Your task to perform on an android device: change the upload size in google photos Image 0: 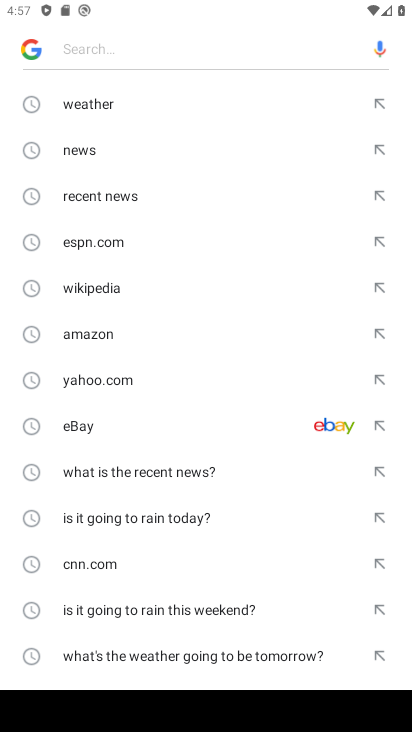
Step 0: press home button
Your task to perform on an android device: change the upload size in google photos Image 1: 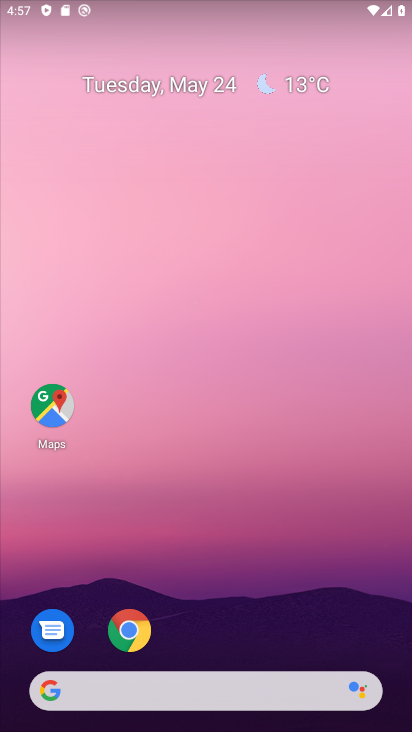
Step 1: drag from (200, 637) to (248, 4)
Your task to perform on an android device: change the upload size in google photos Image 2: 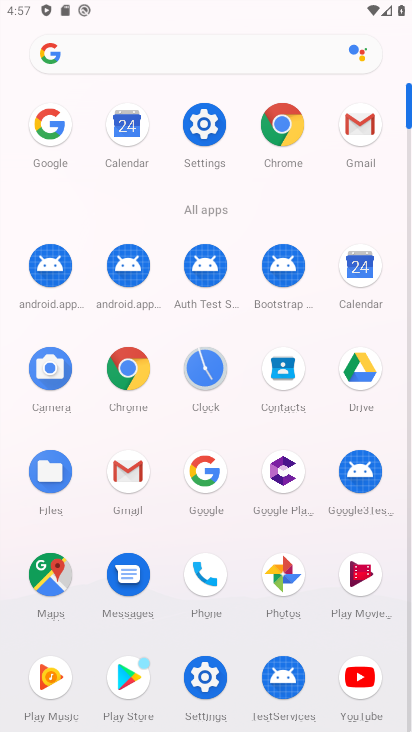
Step 2: click (291, 594)
Your task to perform on an android device: change the upload size in google photos Image 3: 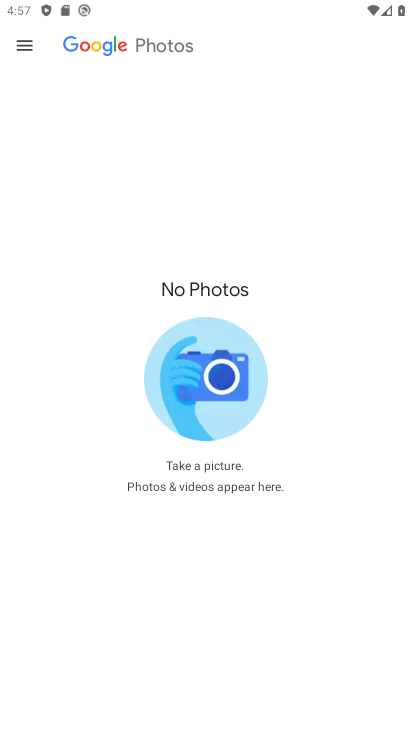
Step 3: click (25, 46)
Your task to perform on an android device: change the upload size in google photos Image 4: 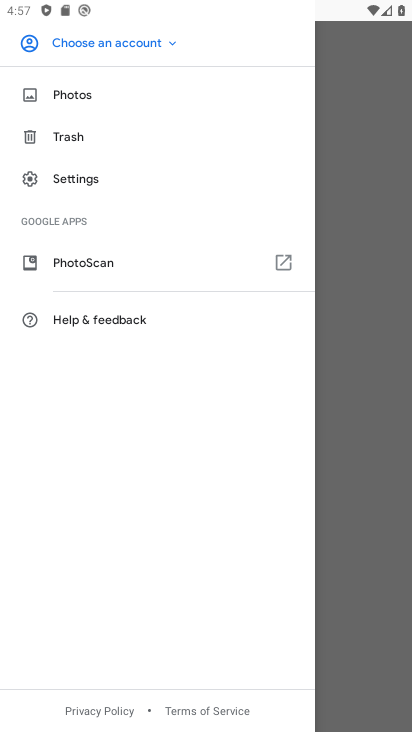
Step 4: press home button
Your task to perform on an android device: change the upload size in google photos Image 5: 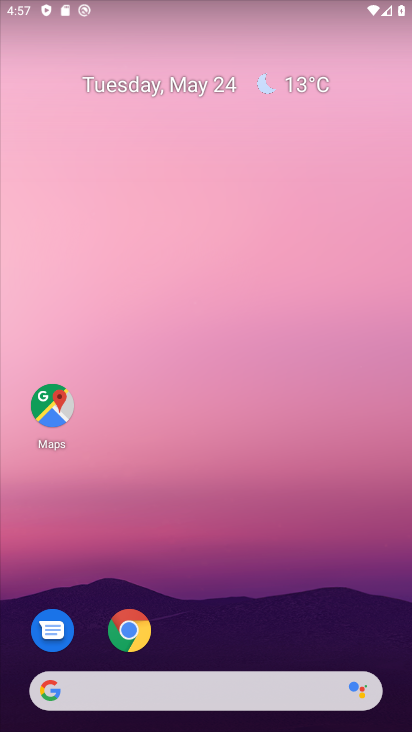
Step 5: drag from (193, 282) to (213, 133)
Your task to perform on an android device: change the upload size in google photos Image 6: 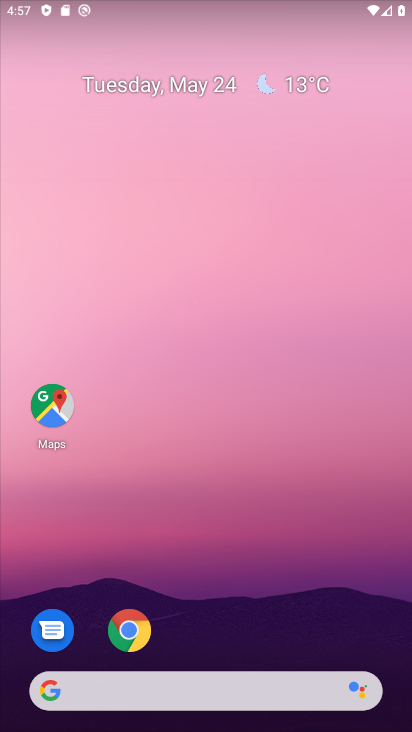
Step 6: drag from (197, 629) to (157, 282)
Your task to perform on an android device: change the upload size in google photos Image 7: 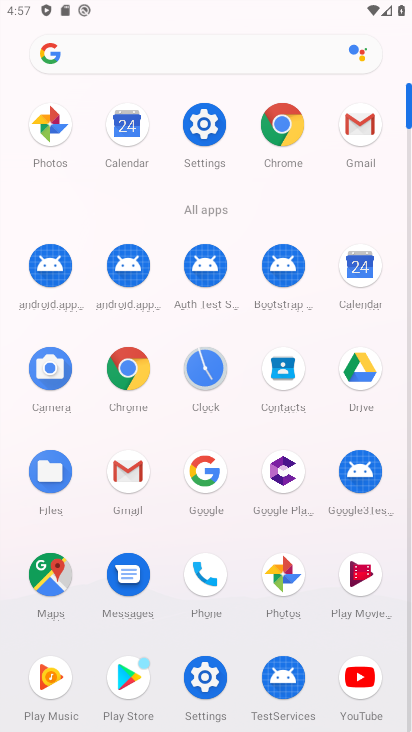
Step 7: click (275, 596)
Your task to perform on an android device: change the upload size in google photos Image 8: 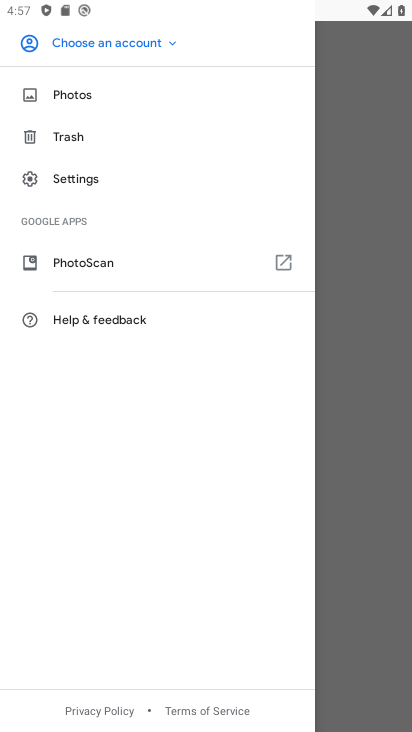
Step 8: click (78, 190)
Your task to perform on an android device: change the upload size in google photos Image 9: 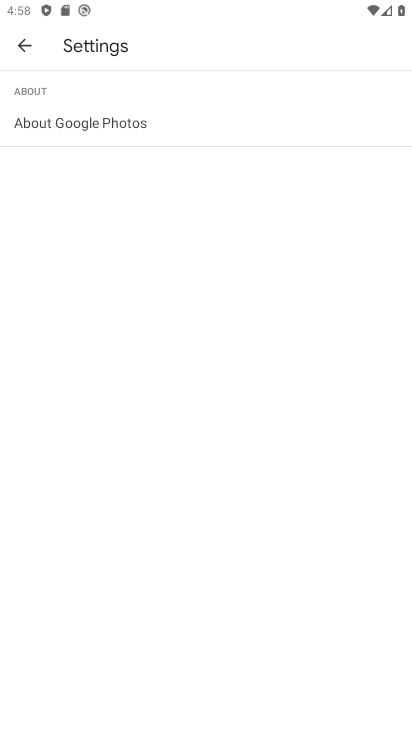
Step 9: click (22, 45)
Your task to perform on an android device: change the upload size in google photos Image 10: 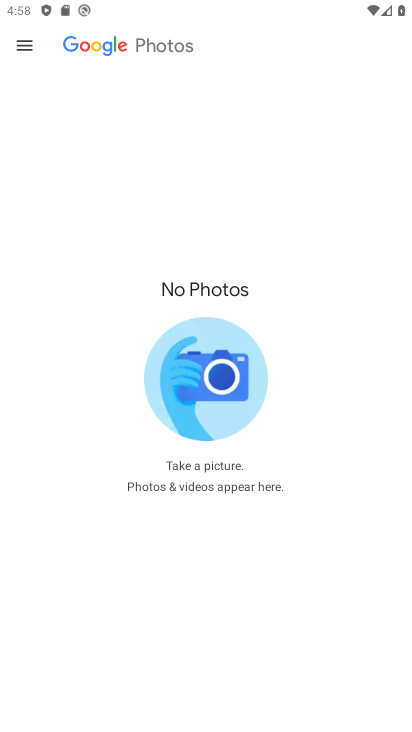
Step 10: click (29, 51)
Your task to perform on an android device: change the upload size in google photos Image 11: 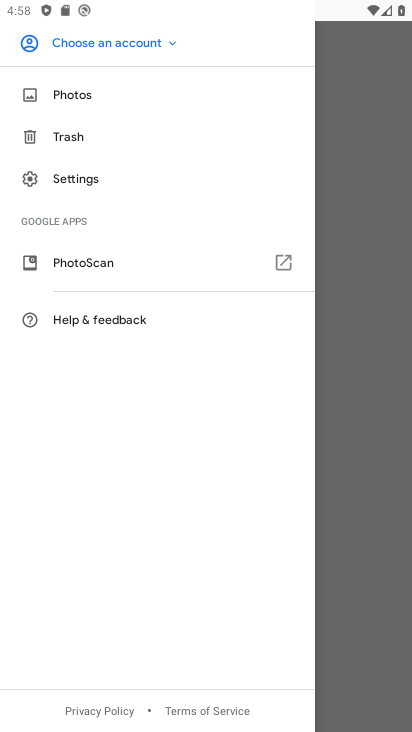
Step 11: click (116, 50)
Your task to perform on an android device: change the upload size in google photos Image 12: 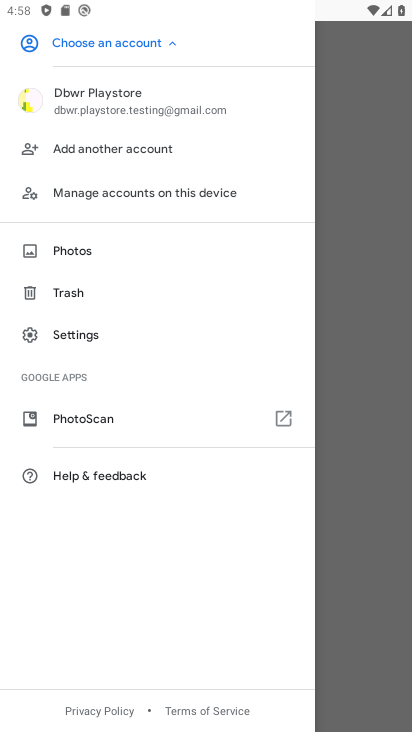
Step 12: click (114, 117)
Your task to perform on an android device: change the upload size in google photos Image 13: 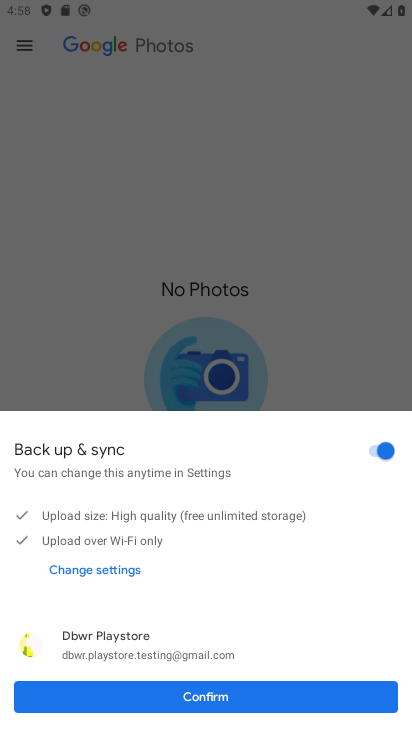
Step 13: click (215, 702)
Your task to perform on an android device: change the upload size in google photos Image 14: 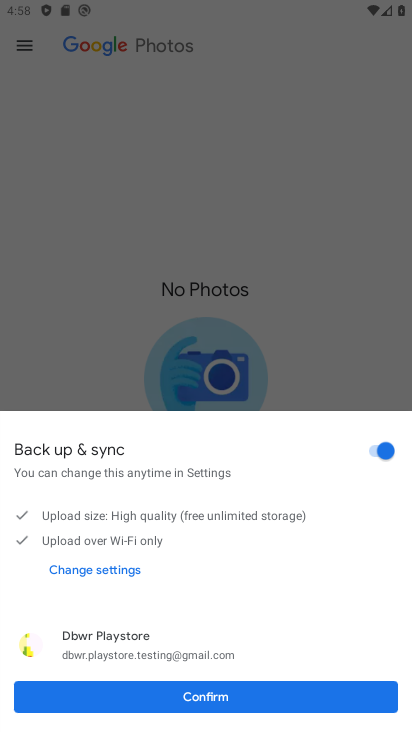
Step 14: click (215, 702)
Your task to perform on an android device: change the upload size in google photos Image 15: 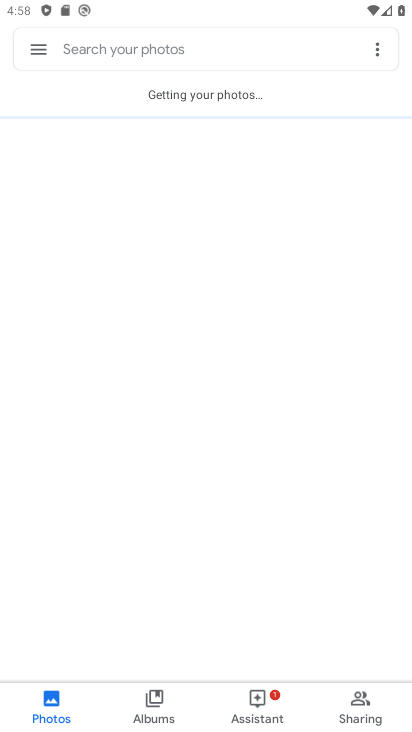
Step 15: click (42, 50)
Your task to perform on an android device: change the upload size in google photos Image 16: 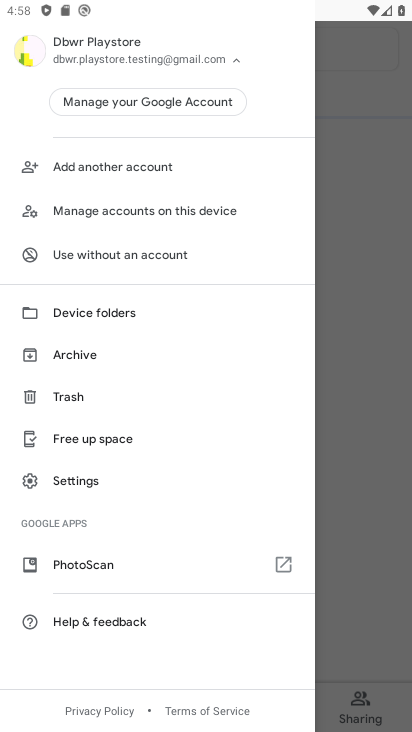
Step 16: click (73, 486)
Your task to perform on an android device: change the upload size in google photos Image 17: 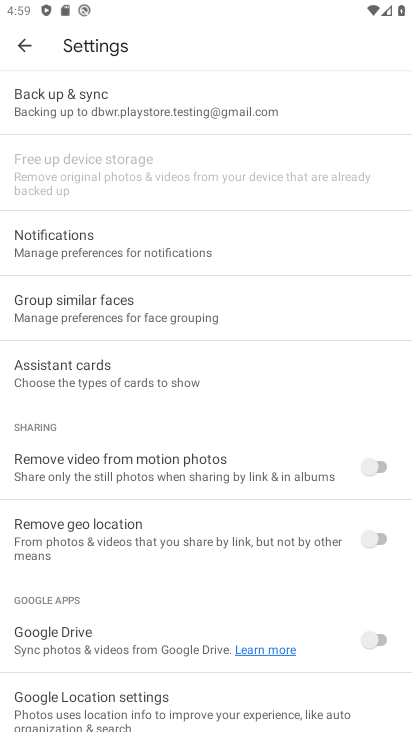
Step 17: click (75, 103)
Your task to perform on an android device: change the upload size in google photos Image 18: 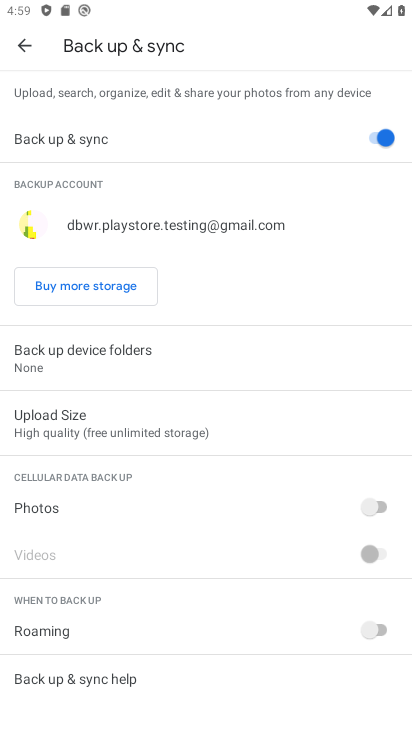
Step 18: click (63, 434)
Your task to perform on an android device: change the upload size in google photos Image 19: 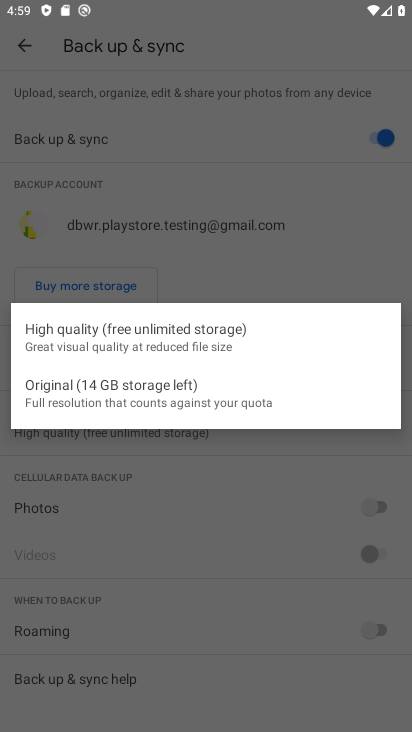
Step 19: click (99, 395)
Your task to perform on an android device: change the upload size in google photos Image 20: 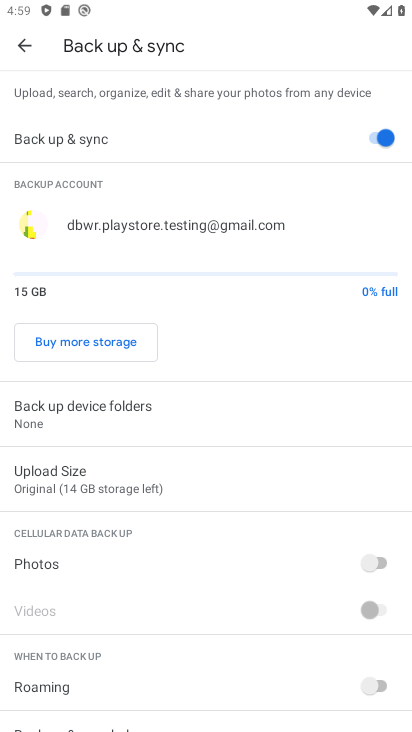
Step 20: task complete